Your task to perform on an android device: search for starred emails in the gmail app Image 0: 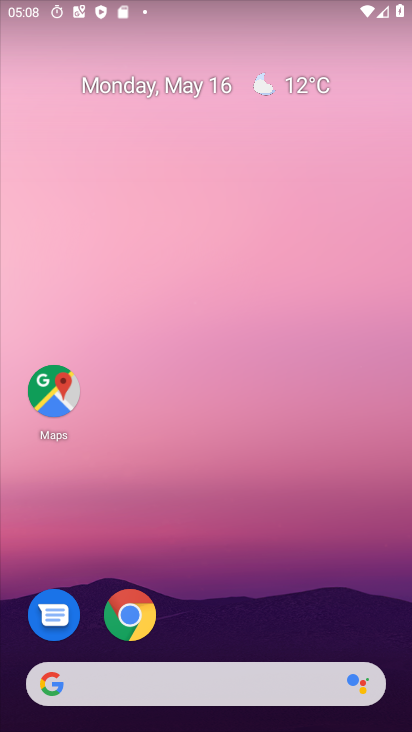
Step 0: drag from (380, 660) to (145, 38)
Your task to perform on an android device: search for starred emails in the gmail app Image 1: 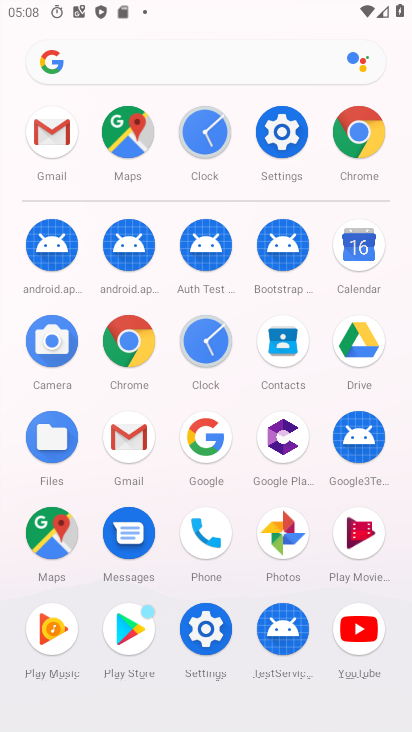
Step 1: click (127, 428)
Your task to perform on an android device: search for starred emails in the gmail app Image 2: 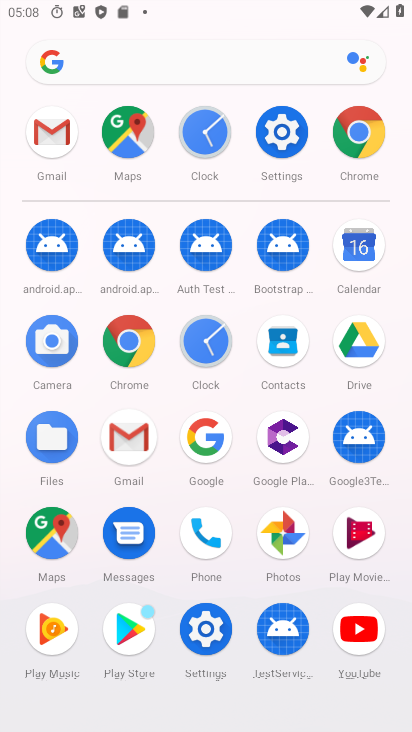
Step 2: click (123, 428)
Your task to perform on an android device: search for starred emails in the gmail app Image 3: 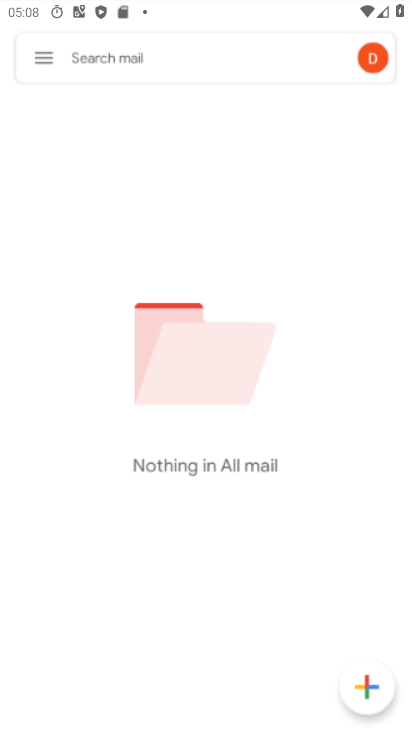
Step 3: click (123, 429)
Your task to perform on an android device: search for starred emails in the gmail app Image 4: 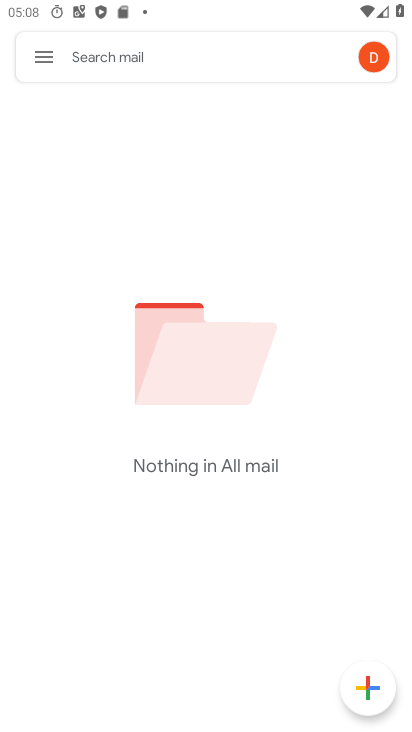
Step 4: click (51, 55)
Your task to perform on an android device: search for starred emails in the gmail app Image 5: 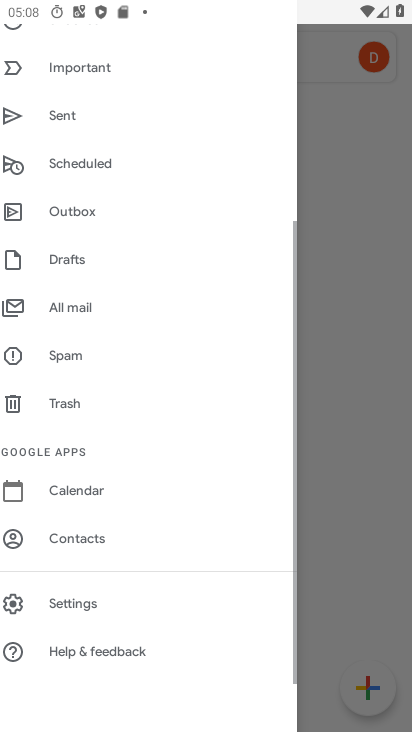
Step 5: click (53, 56)
Your task to perform on an android device: search for starred emails in the gmail app Image 6: 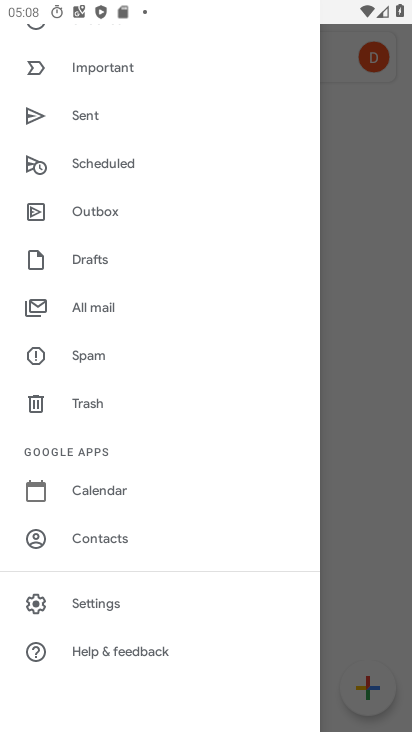
Step 6: click (96, 604)
Your task to perform on an android device: search for starred emails in the gmail app Image 7: 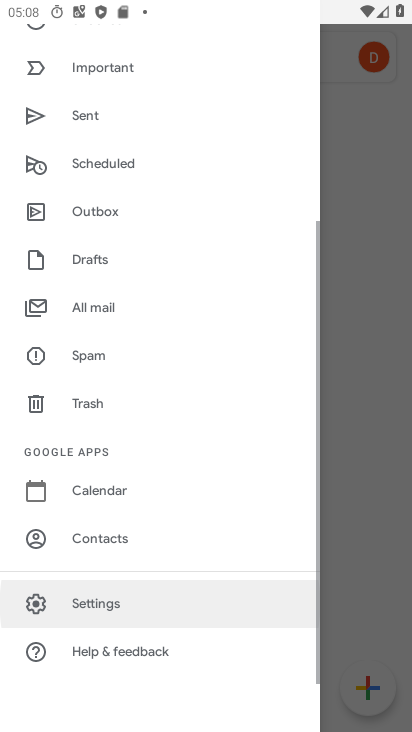
Step 7: click (95, 603)
Your task to perform on an android device: search for starred emails in the gmail app Image 8: 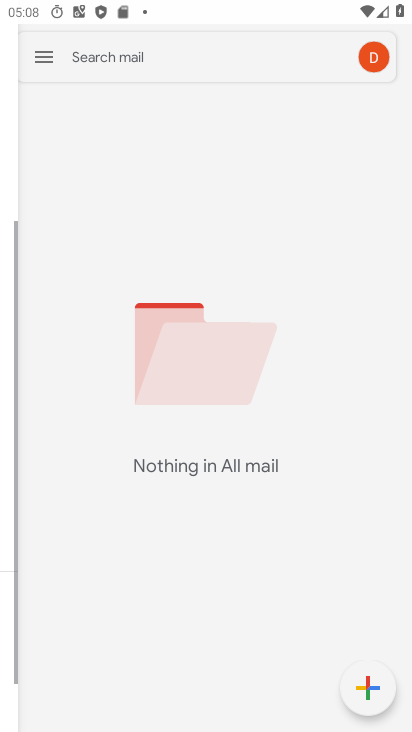
Step 8: click (95, 603)
Your task to perform on an android device: search for starred emails in the gmail app Image 9: 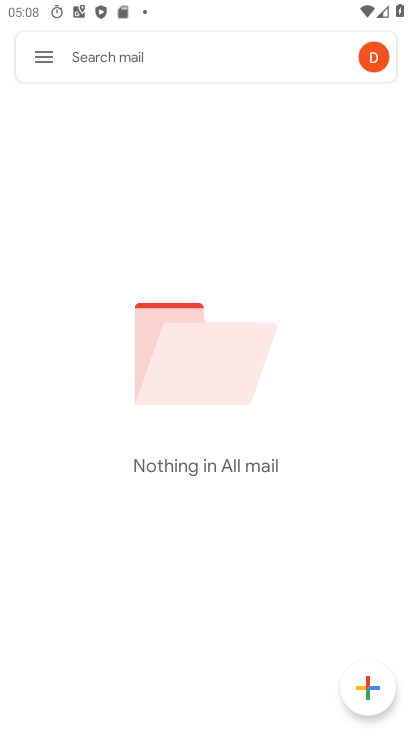
Step 9: click (95, 602)
Your task to perform on an android device: search for starred emails in the gmail app Image 10: 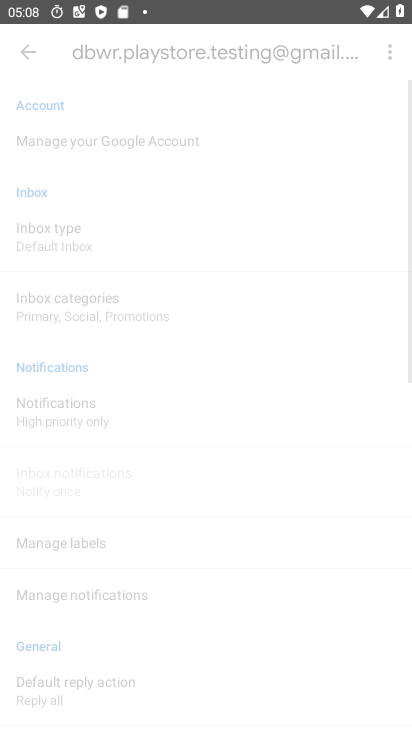
Step 10: click (95, 602)
Your task to perform on an android device: search for starred emails in the gmail app Image 11: 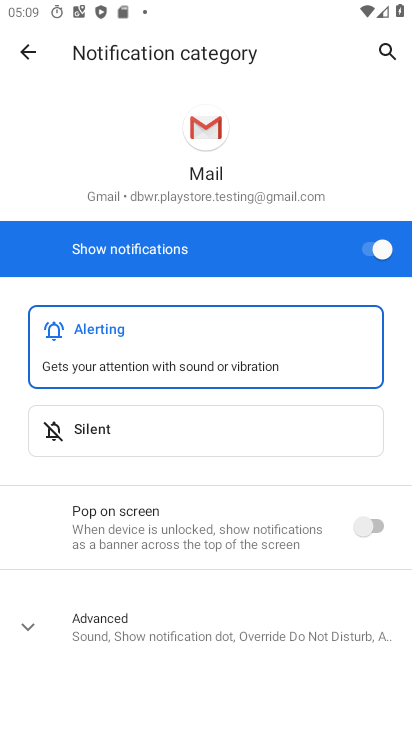
Step 11: click (29, 49)
Your task to perform on an android device: search for starred emails in the gmail app Image 12: 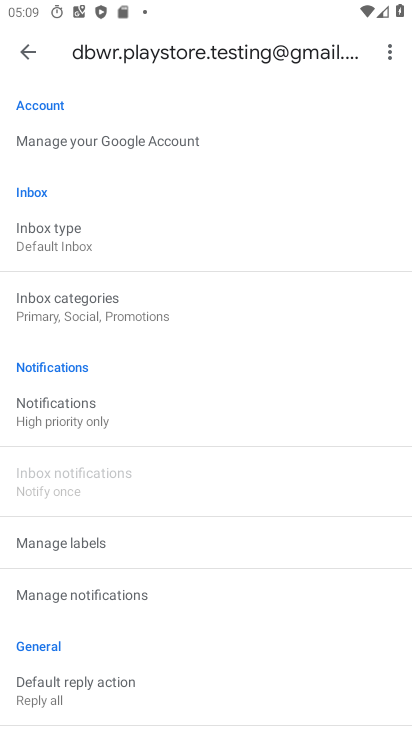
Step 12: drag from (120, 554) to (117, 131)
Your task to perform on an android device: search for starred emails in the gmail app Image 13: 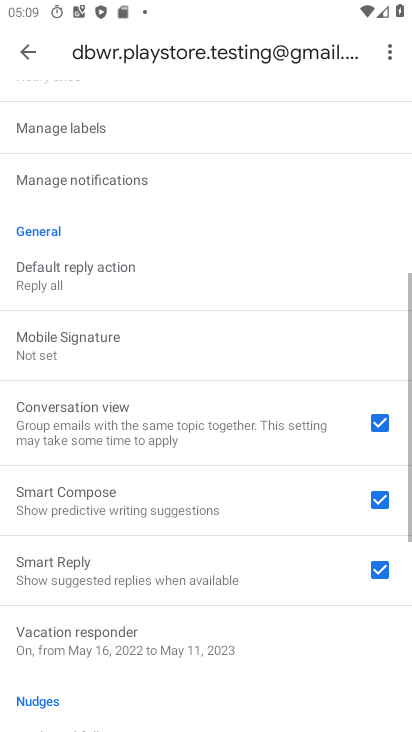
Step 13: drag from (145, 410) to (134, 181)
Your task to perform on an android device: search for starred emails in the gmail app Image 14: 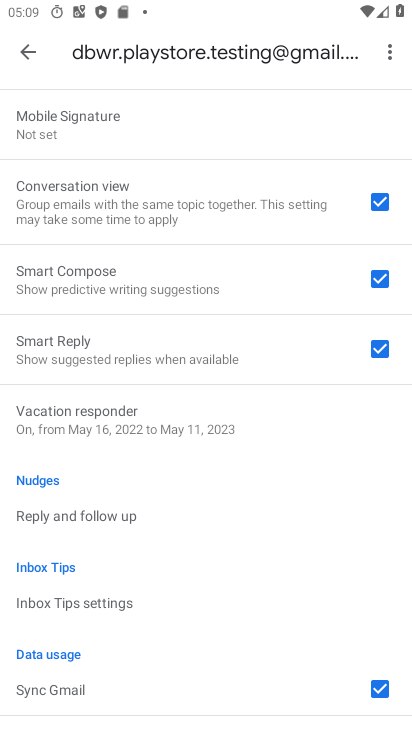
Step 14: press home button
Your task to perform on an android device: search for starred emails in the gmail app Image 15: 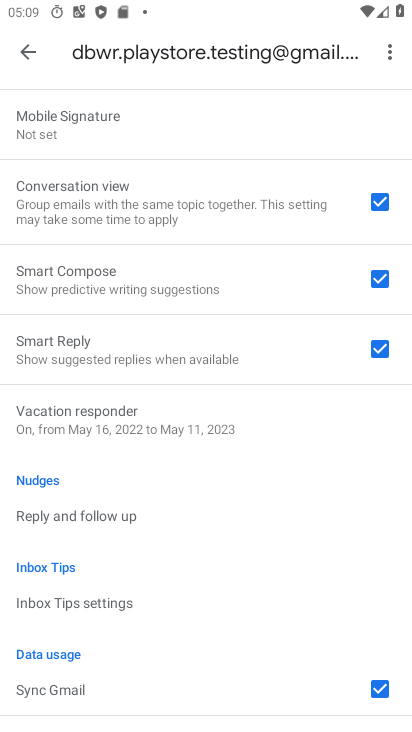
Step 15: press home button
Your task to perform on an android device: search for starred emails in the gmail app Image 16: 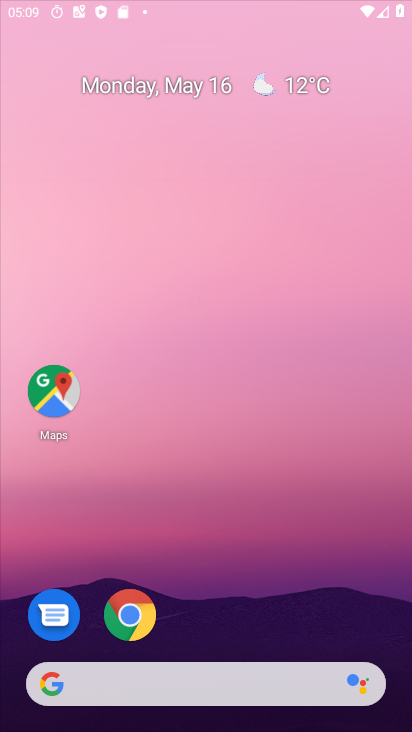
Step 16: press home button
Your task to perform on an android device: search for starred emails in the gmail app Image 17: 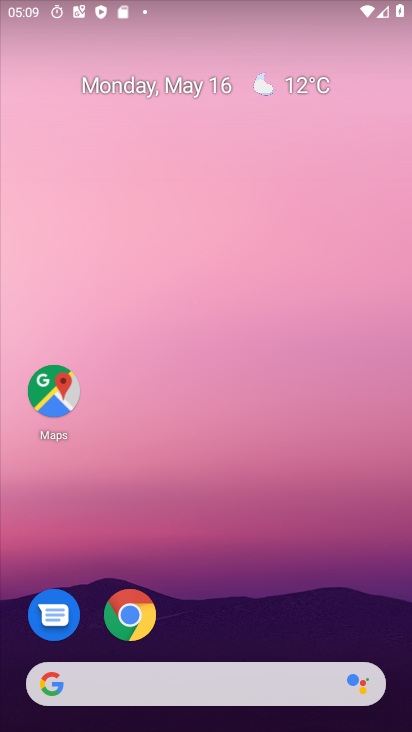
Step 17: press home button
Your task to perform on an android device: search for starred emails in the gmail app Image 18: 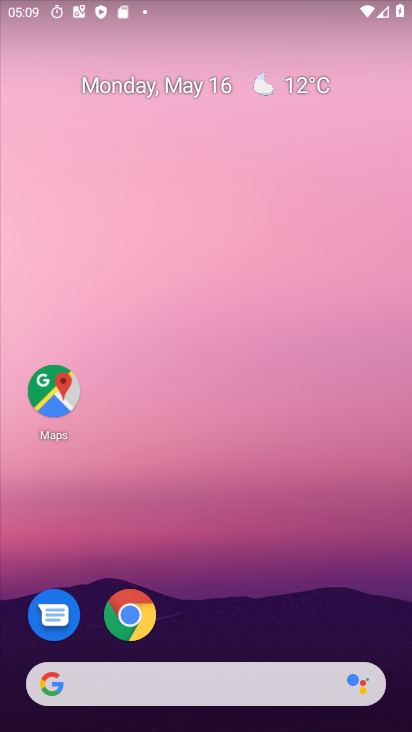
Step 18: drag from (306, 527) to (234, 22)
Your task to perform on an android device: search for starred emails in the gmail app Image 19: 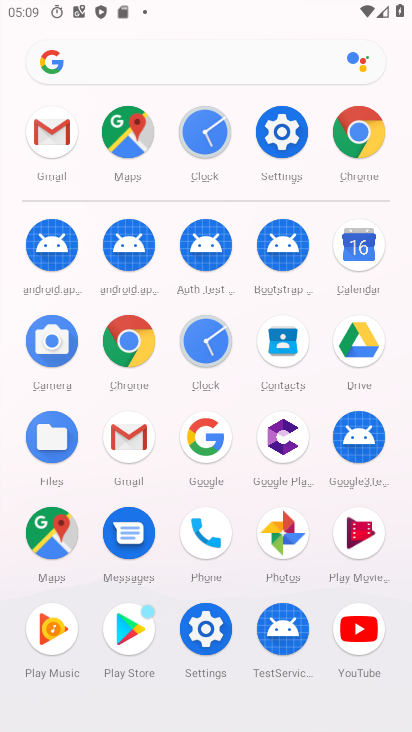
Step 19: click (121, 440)
Your task to perform on an android device: search for starred emails in the gmail app Image 20: 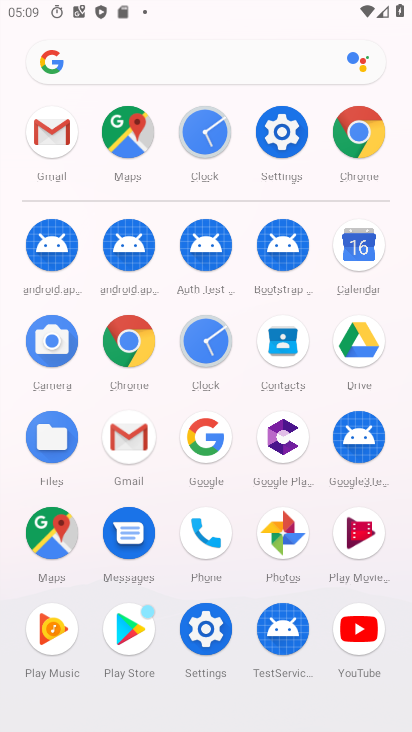
Step 20: click (120, 434)
Your task to perform on an android device: search for starred emails in the gmail app Image 21: 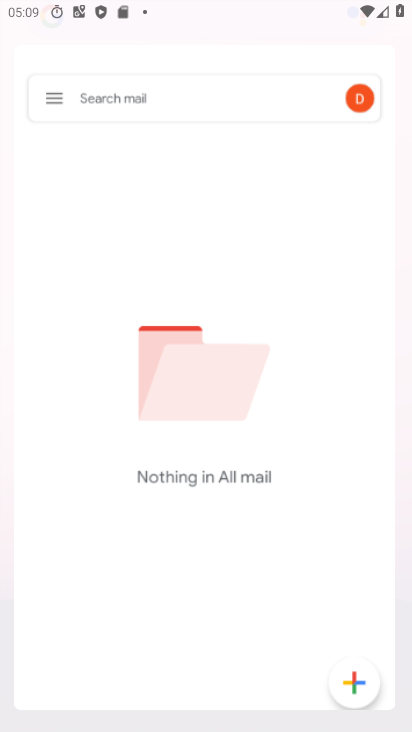
Step 21: click (121, 432)
Your task to perform on an android device: search for starred emails in the gmail app Image 22: 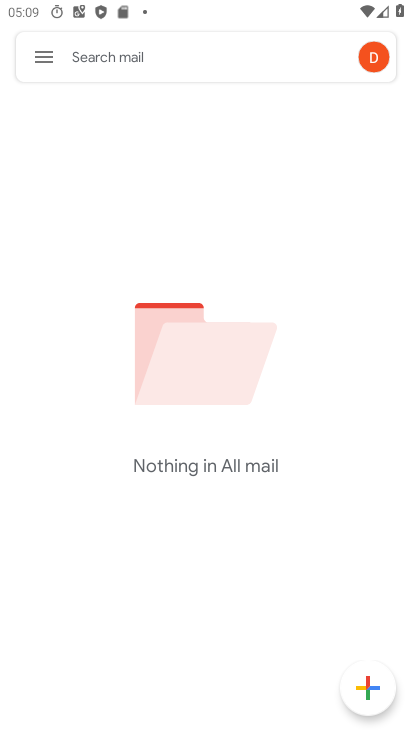
Step 22: click (32, 57)
Your task to perform on an android device: search for starred emails in the gmail app Image 23: 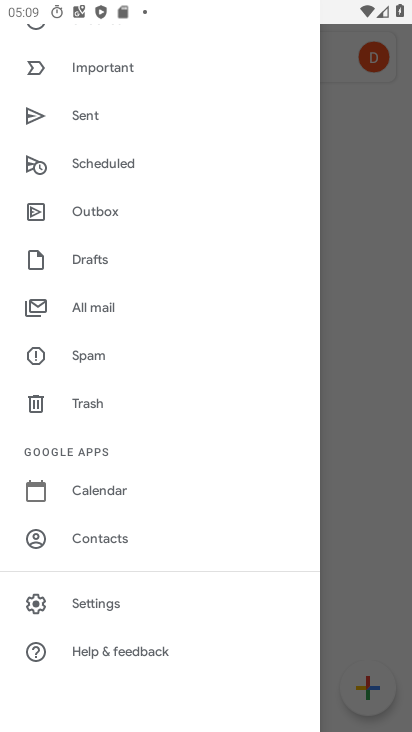
Step 23: drag from (121, 291) to (119, 679)
Your task to perform on an android device: search for starred emails in the gmail app Image 24: 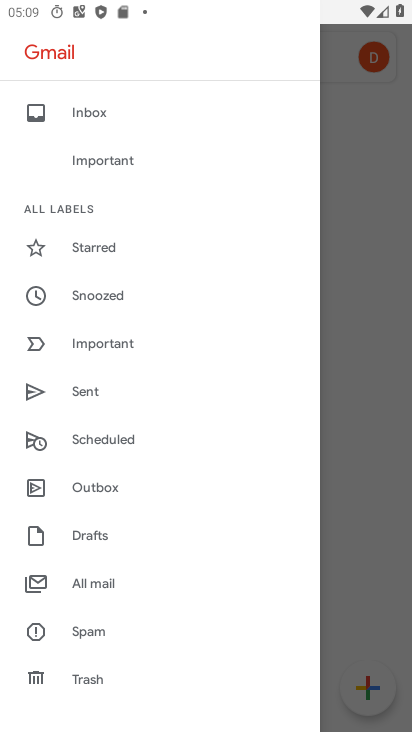
Step 24: click (91, 245)
Your task to perform on an android device: search for starred emails in the gmail app Image 25: 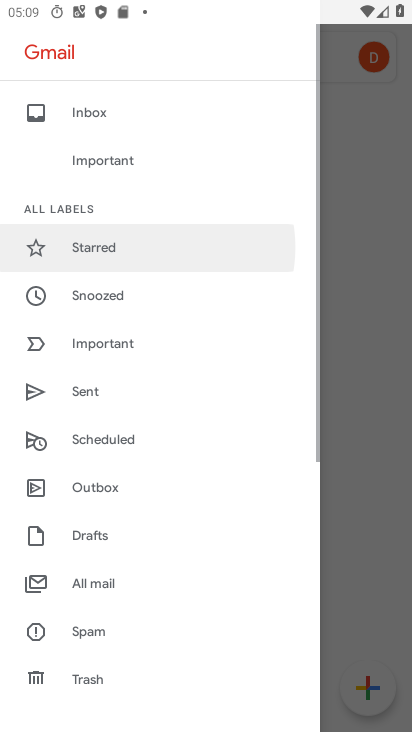
Step 25: click (91, 245)
Your task to perform on an android device: search for starred emails in the gmail app Image 26: 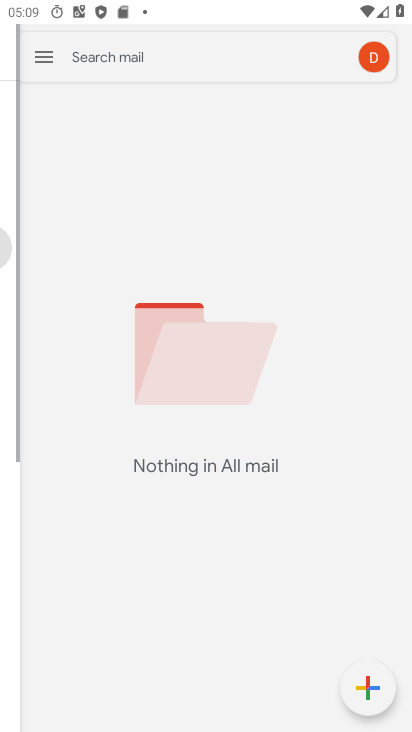
Step 26: click (91, 246)
Your task to perform on an android device: search for starred emails in the gmail app Image 27: 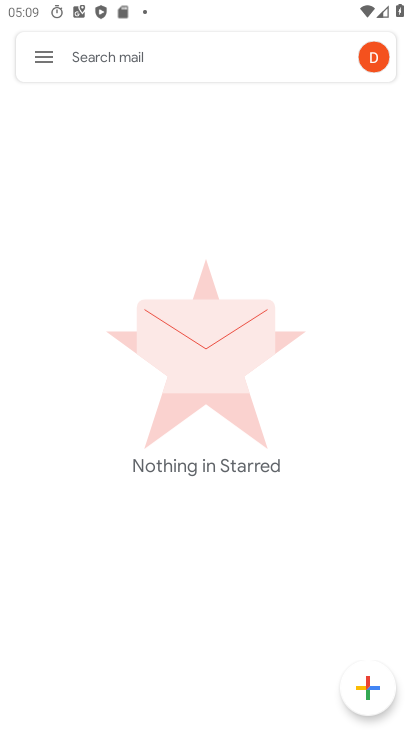
Step 27: task complete